Your task to perform on an android device: Go to display settings Image 0: 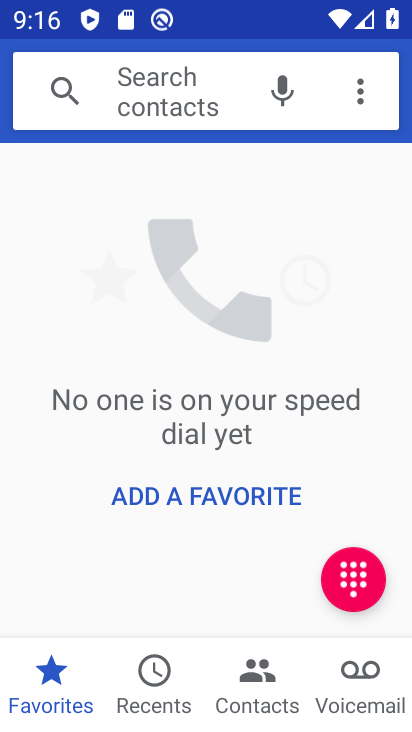
Step 0: press home button
Your task to perform on an android device: Go to display settings Image 1: 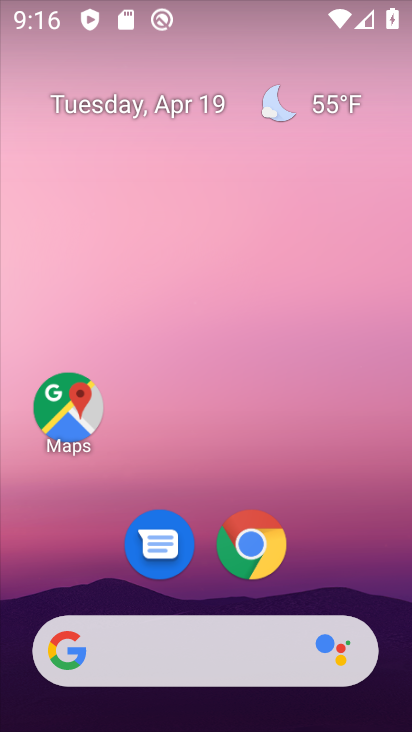
Step 1: drag from (372, 551) to (373, 113)
Your task to perform on an android device: Go to display settings Image 2: 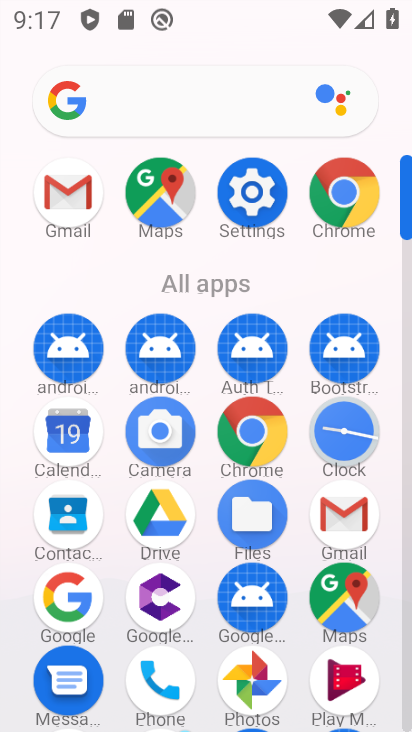
Step 2: click (219, 182)
Your task to perform on an android device: Go to display settings Image 3: 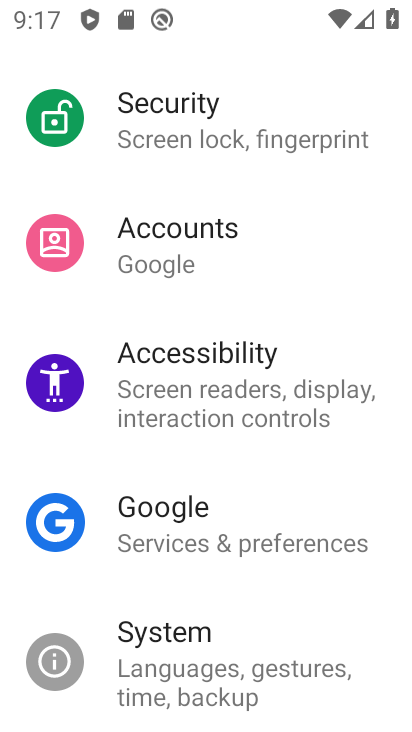
Step 3: drag from (370, 588) to (380, 264)
Your task to perform on an android device: Go to display settings Image 4: 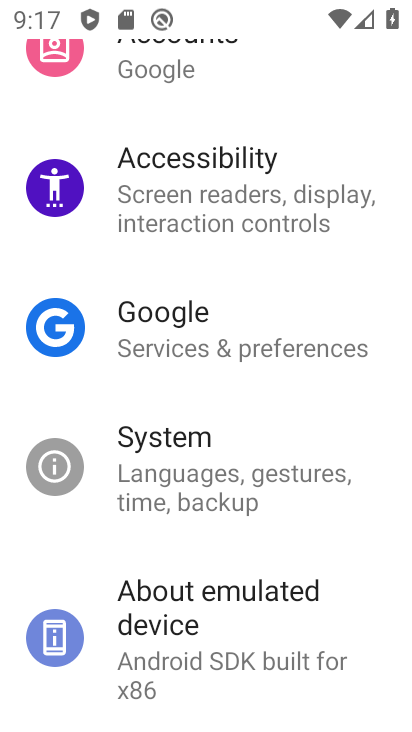
Step 4: drag from (393, 232) to (388, 464)
Your task to perform on an android device: Go to display settings Image 5: 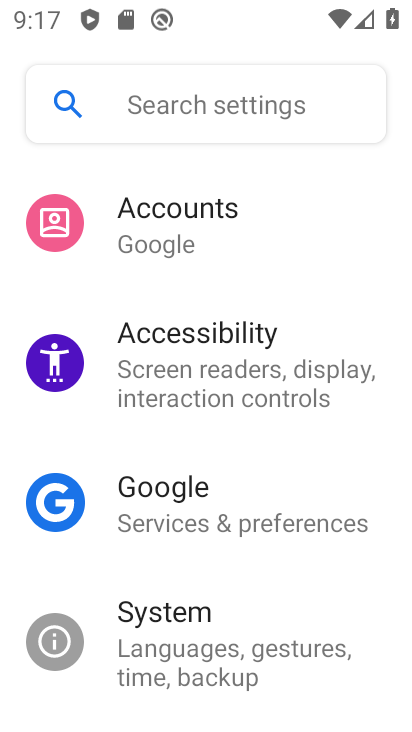
Step 5: drag from (385, 239) to (394, 470)
Your task to perform on an android device: Go to display settings Image 6: 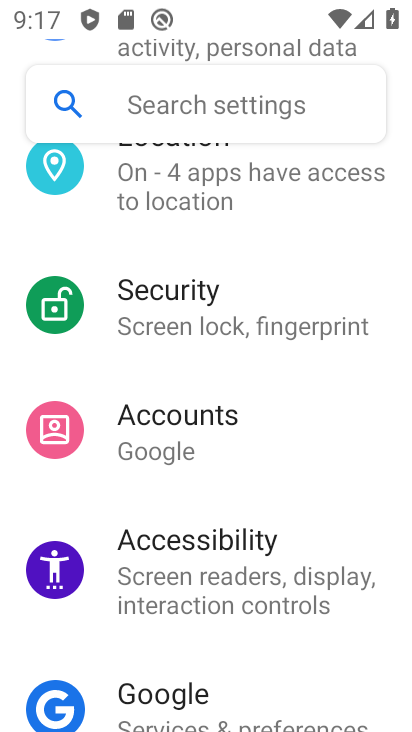
Step 6: drag from (387, 241) to (376, 484)
Your task to perform on an android device: Go to display settings Image 7: 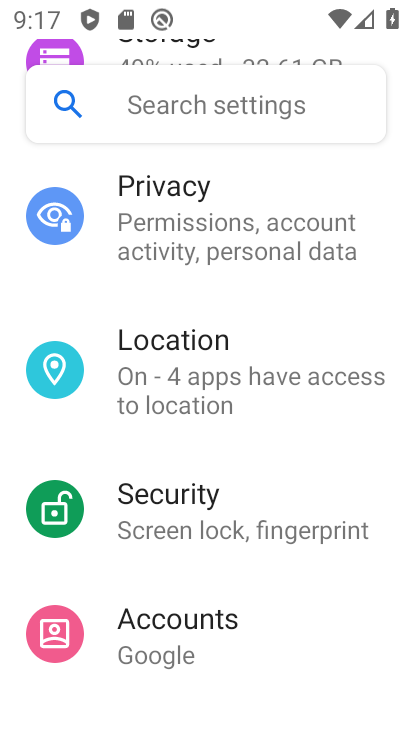
Step 7: drag from (393, 239) to (372, 465)
Your task to perform on an android device: Go to display settings Image 8: 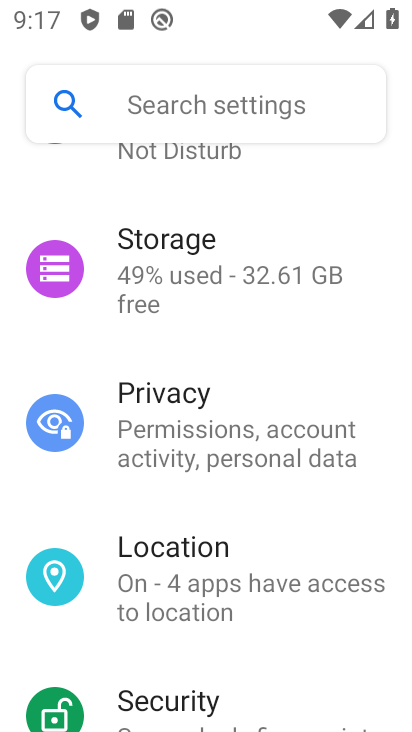
Step 8: drag from (382, 220) to (374, 447)
Your task to perform on an android device: Go to display settings Image 9: 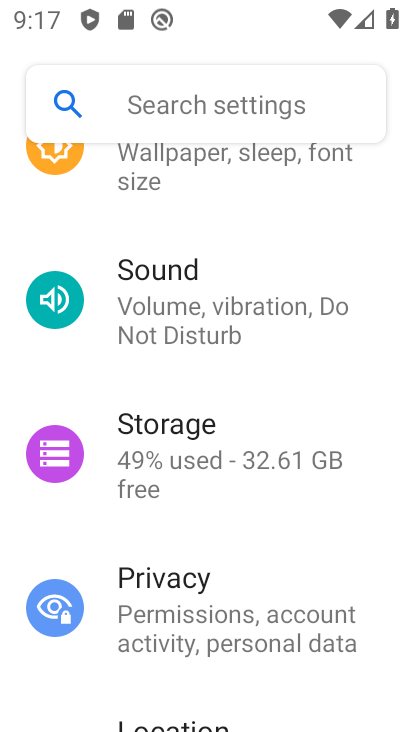
Step 9: drag from (382, 251) to (373, 444)
Your task to perform on an android device: Go to display settings Image 10: 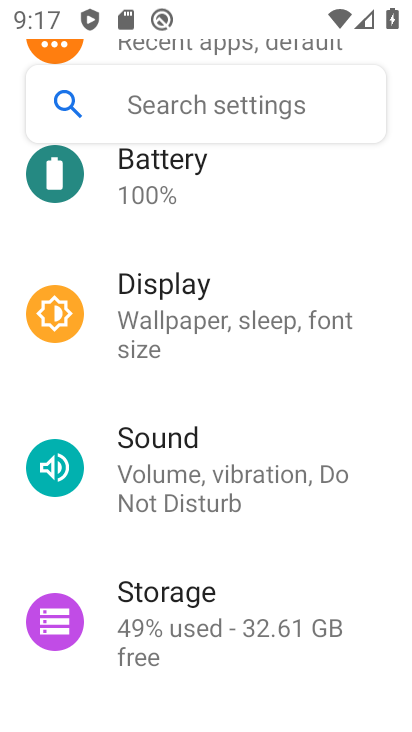
Step 10: drag from (382, 233) to (370, 398)
Your task to perform on an android device: Go to display settings Image 11: 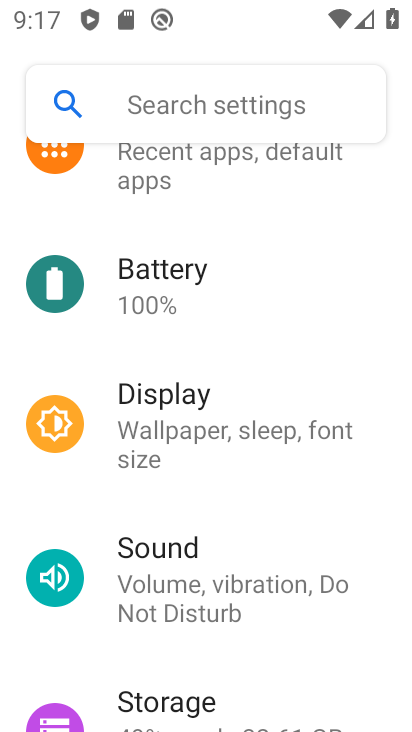
Step 11: click (192, 423)
Your task to perform on an android device: Go to display settings Image 12: 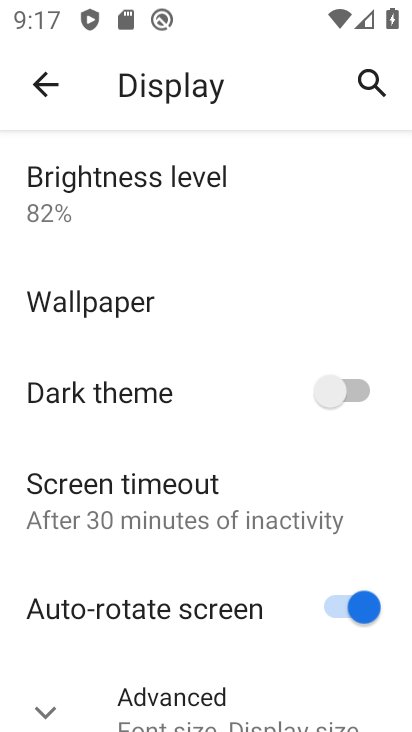
Step 12: drag from (275, 647) to (290, 336)
Your task to perform on an android device: Go to display settings Image 13: 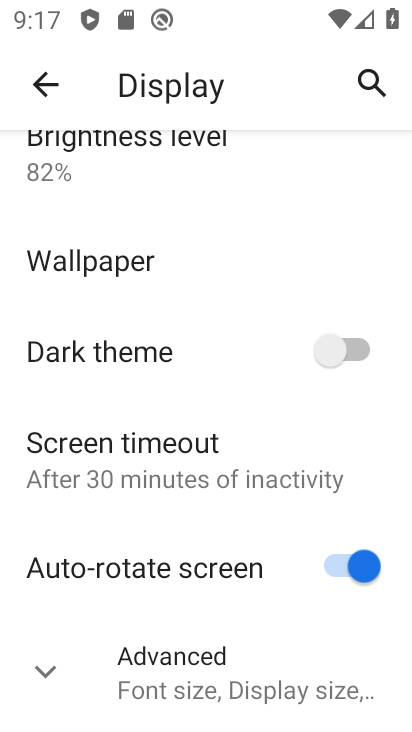
Step 13: click (180, 668)
Your task to perform on an android device: Go to display settings Image 14: 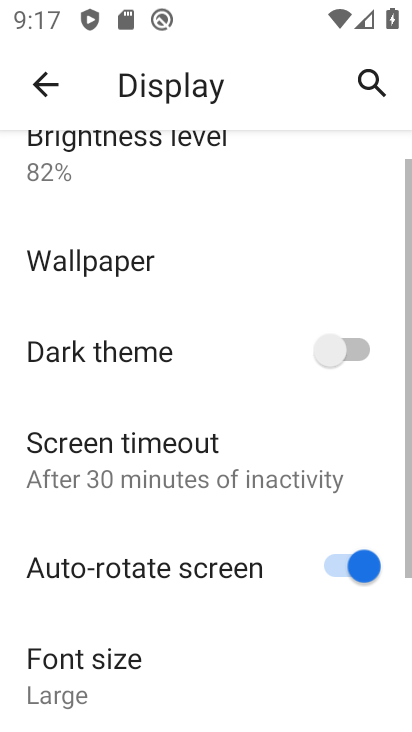
Step 14: task complete